Your task to perform on an android device: show emergency info Image 0: 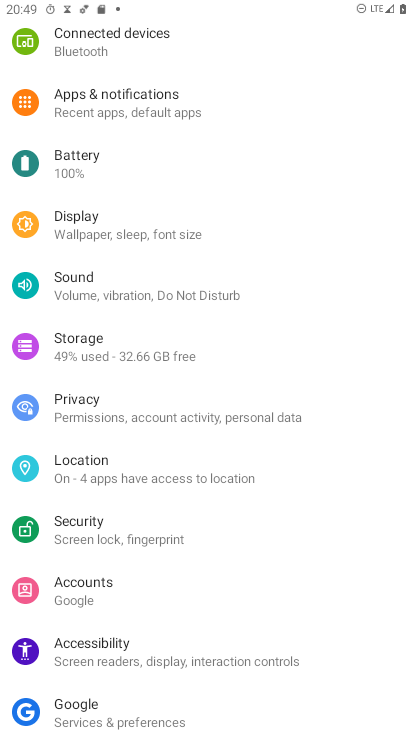
Step 0: drag from (329, 113) to (309, 535)
Your task to perform on an android device: show emergency info Image 1: 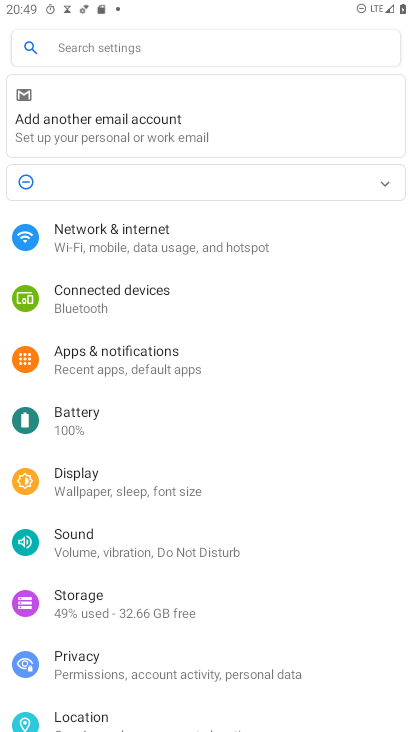
Step 1: click (104, 336)
Your task to perform on an android device: show emergency info Image 2: 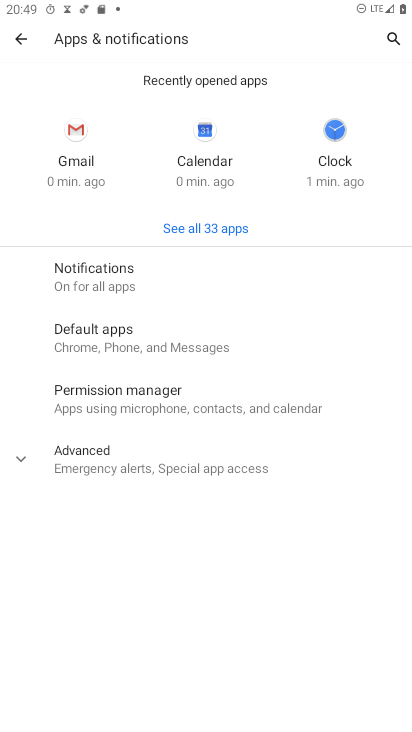
Step 2: click (128, 450)
Your task to perform on an android device: show emergency info Image 3: 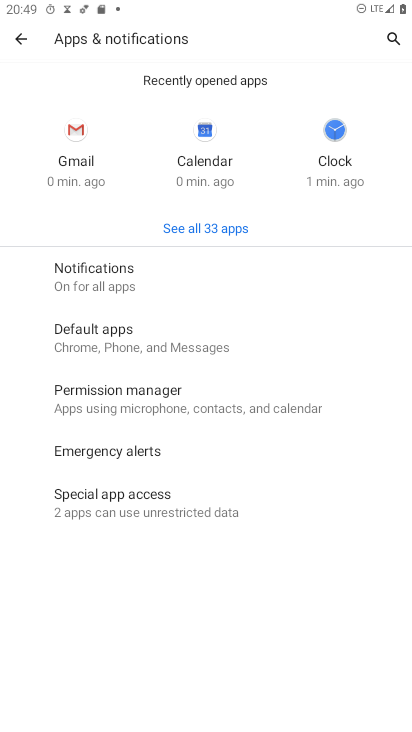
Step 3: click (130, 455)
Your task to perform on an android device: show emergency info Image 4: 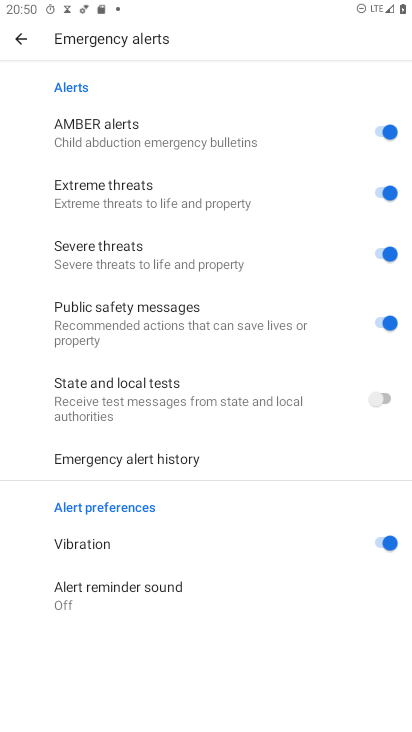
Step 4: task complete